Your task to perform on an android device: What's the weather? Image 0: 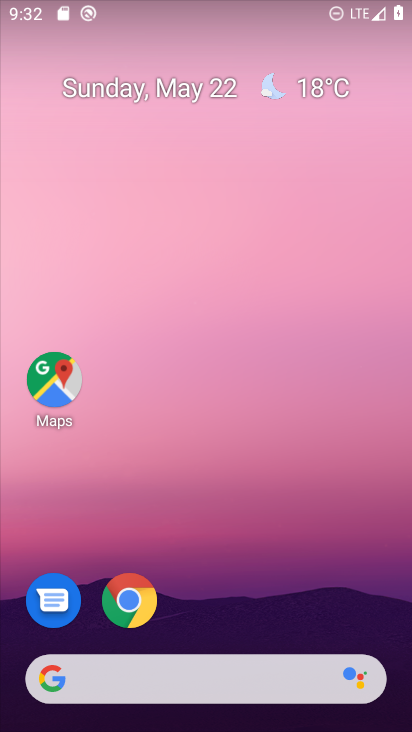
Step 0: drag from (382, 644) to (209, 31)
Your task to perform on an android device: What's the weather? Image 1: 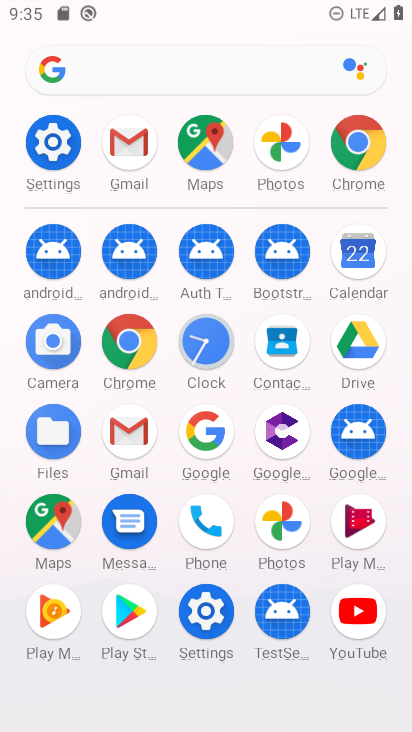
Step 1: click (191, 422)
Your task to perform on an android device: What's the weather? Image 2: 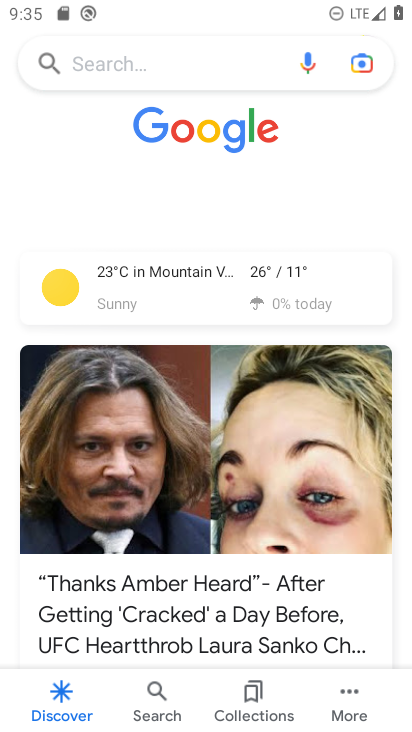
Step 2: click (145, 73)
Your task to perform on an android device: What's the weather? Image 3: 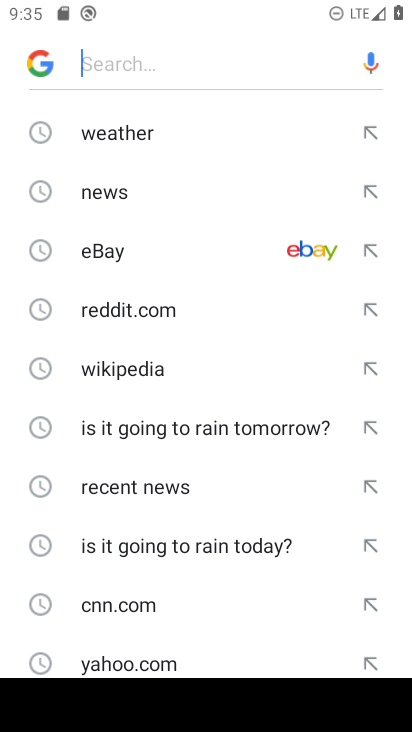
Step 3: click (171, 139)
Your task to perform on an android device: What's the weather? Image 4: 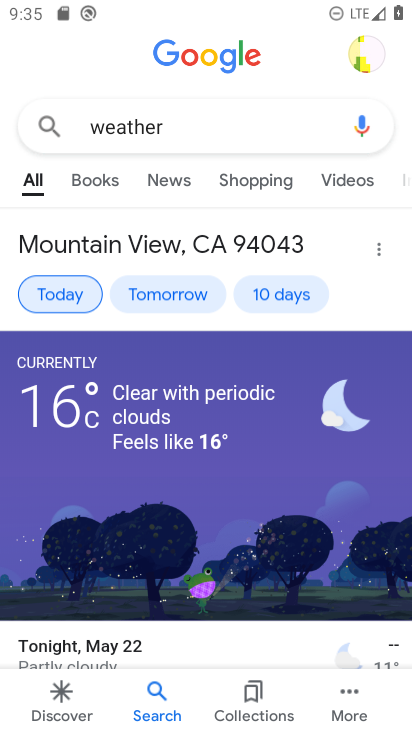
Step 4: task complete